Your task to perform on an android device: set the stopwatch Image 0: 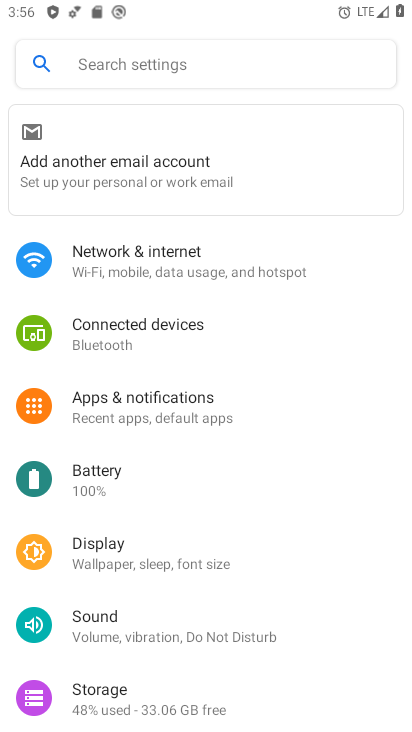
Step 0: press back button
Your task to perform on an android device: set the stopwatch Image 1: 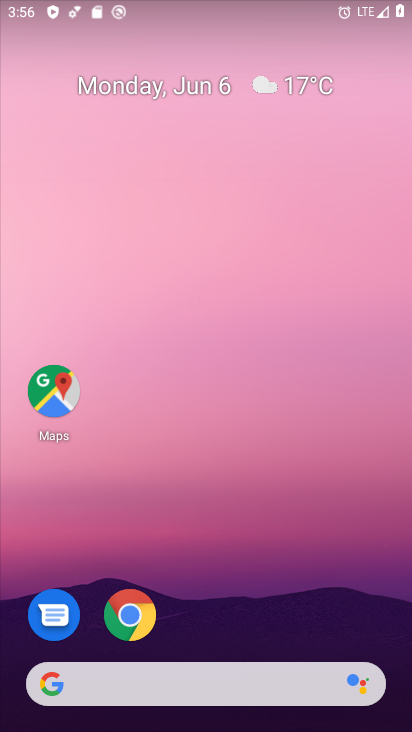
Step 1: drag from (248, 585) to (272, 26)
Your task to perform on an android device: set the stopwatch Image 2: 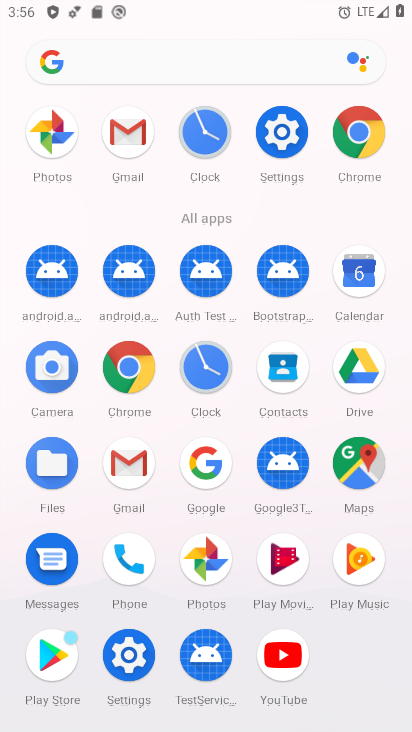
Step 2: click (202, 130)
Your task to perform on an android device: set the stopwatch Image 3: 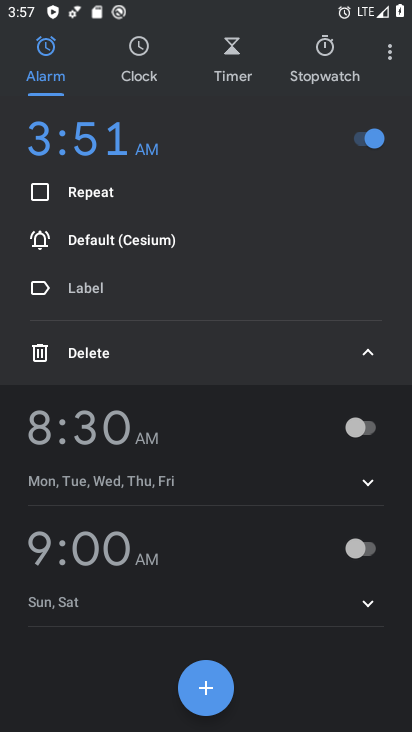
Step 3: click (314, 57)
Your task to perform on an android device: set the stopwatch Image 4: 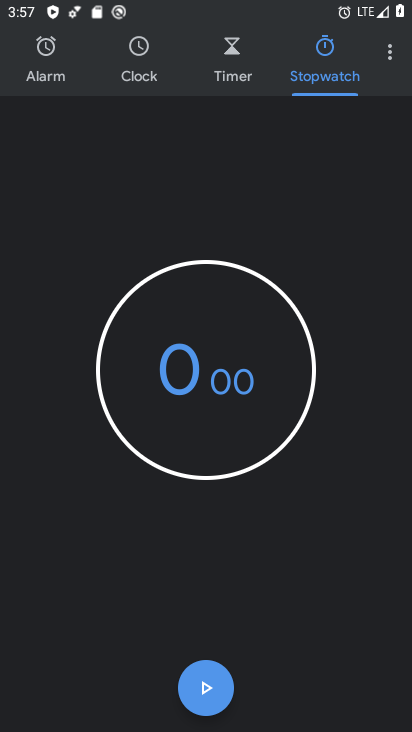
Step 4: click (215, 678)
Your task to perform on an android device: set the stopwatch Image 5: 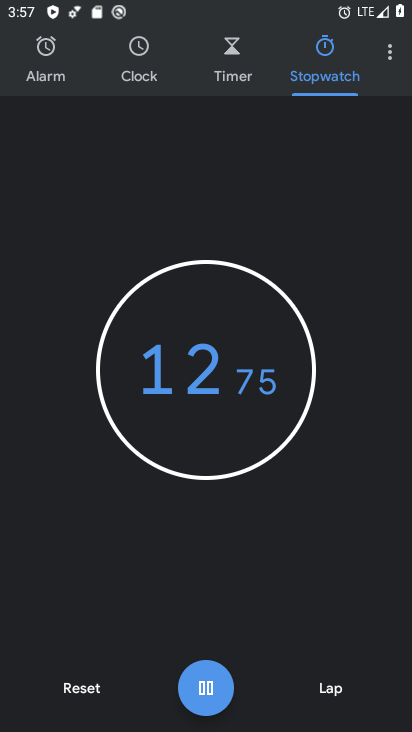
Step 5: task complete